Your task to perform on an android device: turn on wifi Image 0: 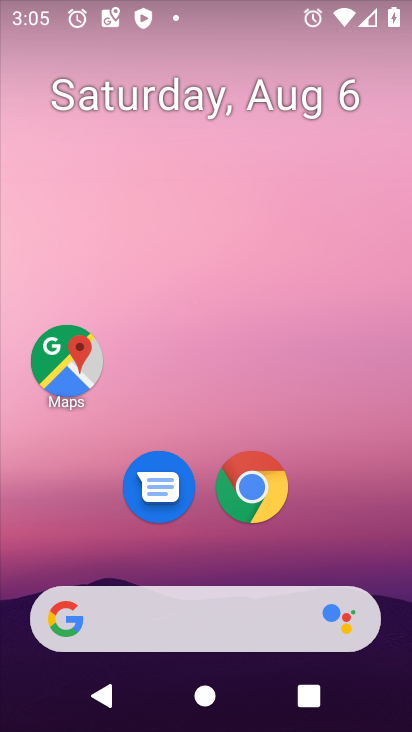
Step 0: drag from (144, 572) to (5, 308)
Your task to perform on an android device: turn on wifi Image 1: 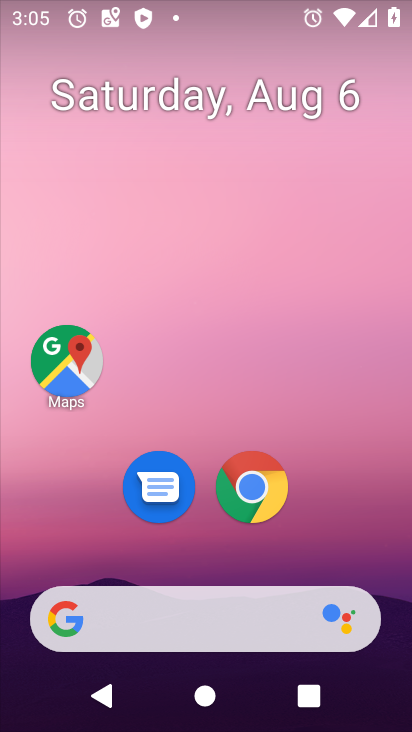
Step 1: drag from (181, 611) to (180, 240)
Your task to perform on an android device: turn on wifi Image 2: 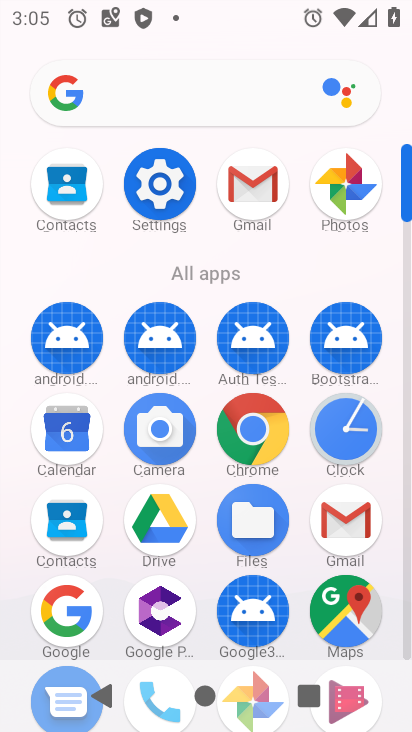
Step 2: click (159, 179)
Your task to perform on an android device: turn on wifi Image 3: 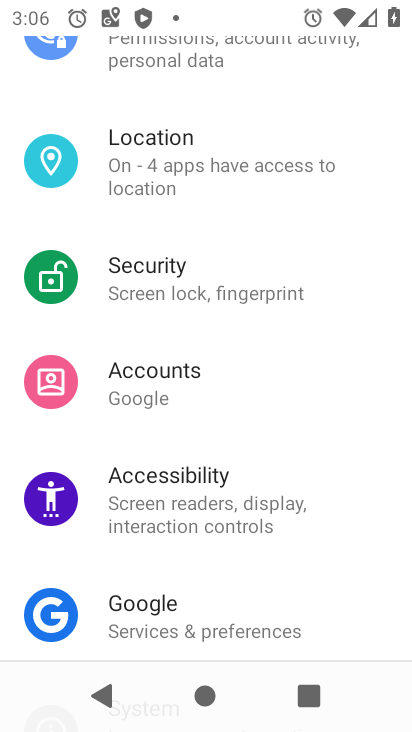
Step 3: drag from (159, 179) to (178, 657)
Your task to perform on an android device: turn on wifi Image 4: 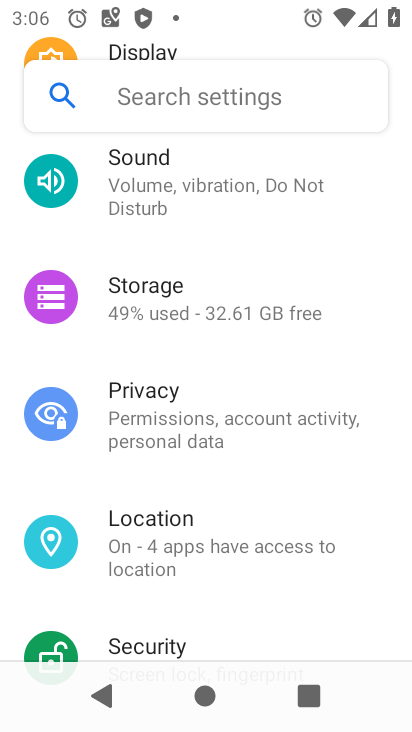
Step 4: drag from (200, 188) to (175, 514)
Your task to perform on an android device: turn on wifi Image 5: 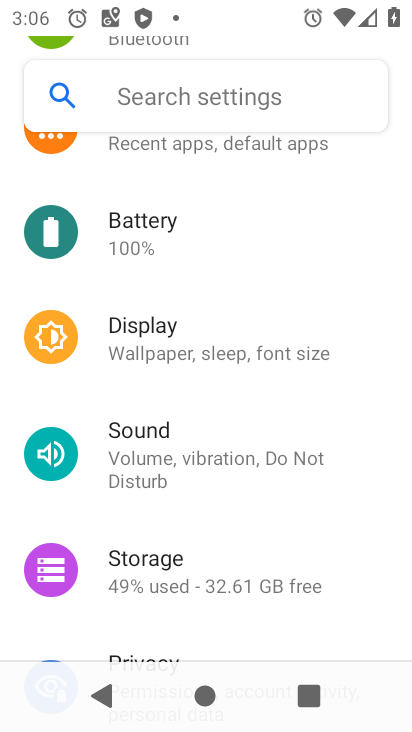
Step 5: drag from (225, 234) to (229, 614)
Your task to perform on an android device: turn on wifi Image 6: 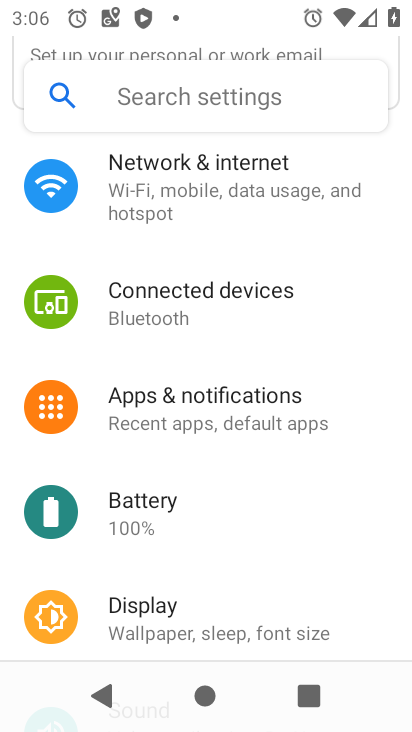
Step 6: click (255, 188)
Your task to perform on an android device: turn on wifi Image 7: 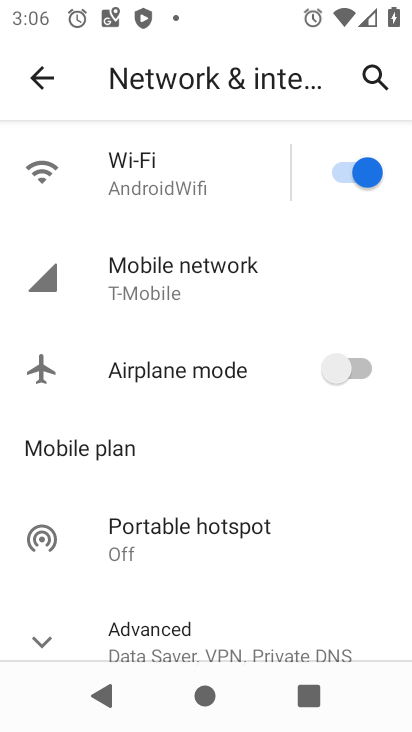
Step 7: task complete